Your task to perform on an android device: change the clock style Image 0: 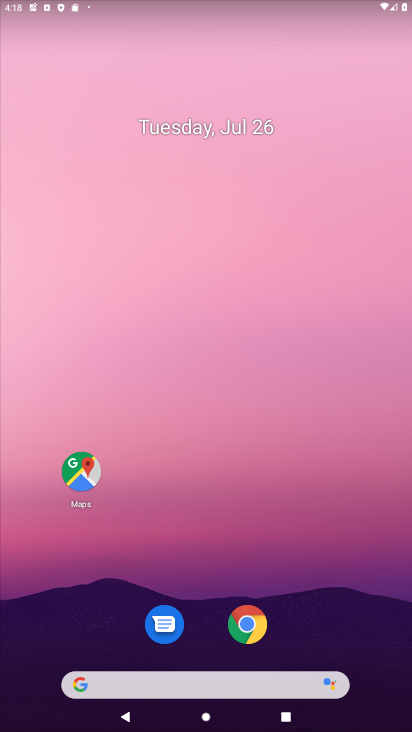
Step 0: drag from (199, 684) to (178, 104)
Your task to perform on an android device: change the clock style Image 1: 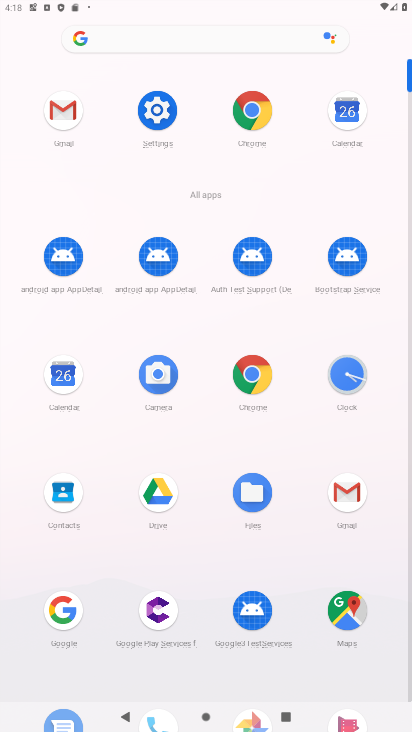
Step 1: click (347, 368)
Your task to perform on an android device: change the clock style Image 2: 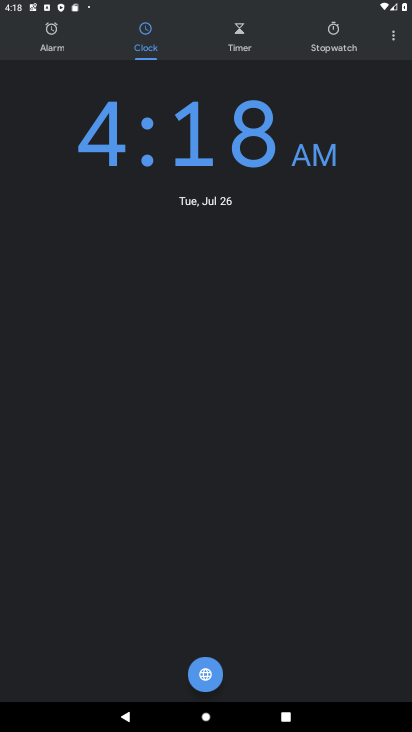
Step 2: click (389, 38)
Your task to perform on an android device: change the clock style Image 3: 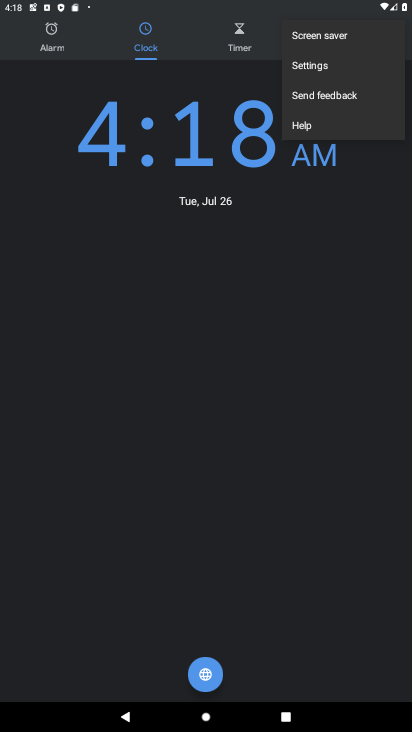
Step 3: click (331, 71)
Your task to perform on an android device: change the clock style Image 4: 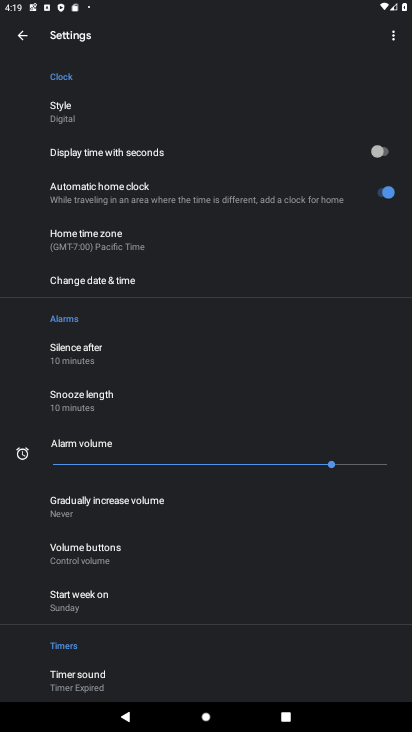
Step 4: click (100, 113)
Your task to perform on an android device: change the clock style Image 5: 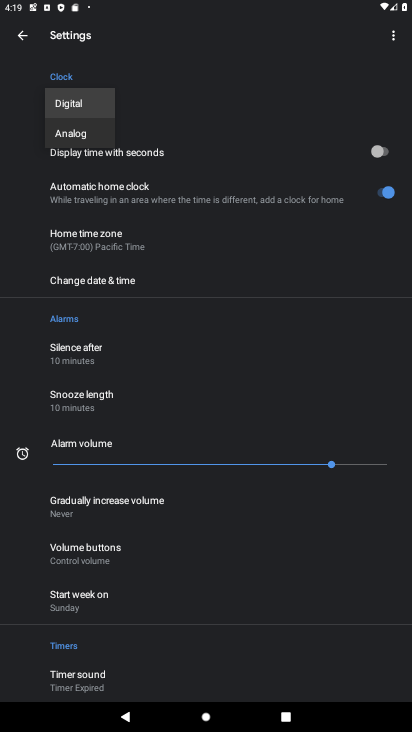
Step 5: click (86, 129)
Your task to perform on an android device: change the clock style Image 6: 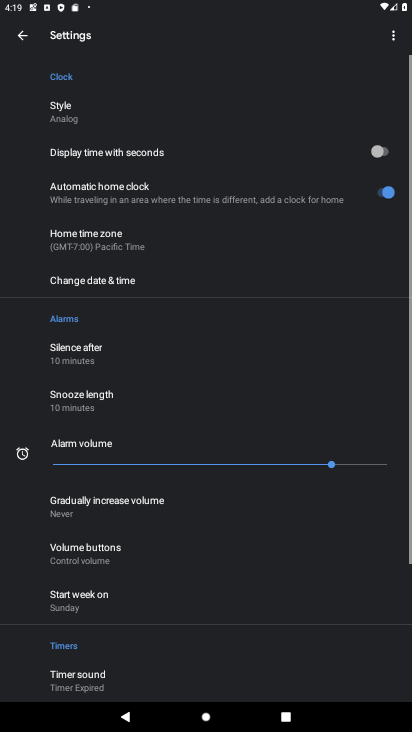
Step 6: task complete